Your task to perform on an android device: turn off javascript in the chrome app Image 0: 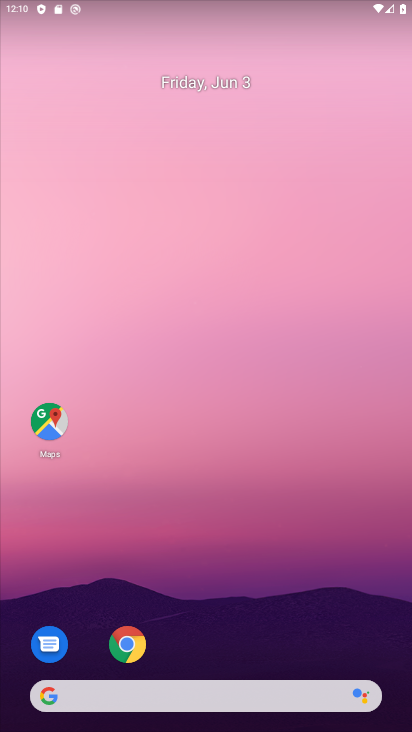
Step 0: click (130, 643)
Your task to perform on an android device: turn off javascript in the chrome app Image 1: 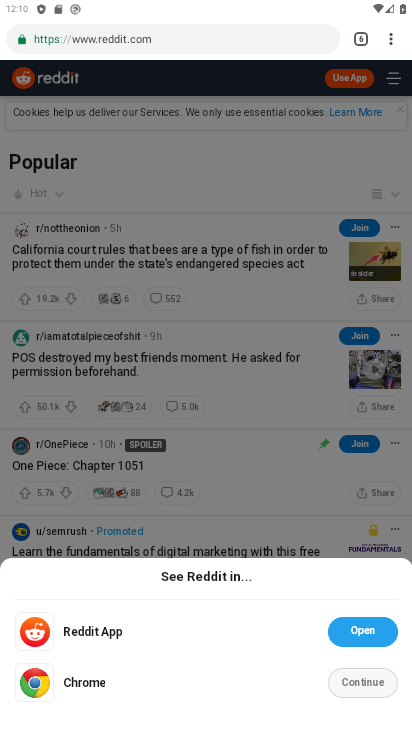
Step 1: click (392, 45)
Your task to perform on an android device: turn off javascript in the chrome app Image 2: 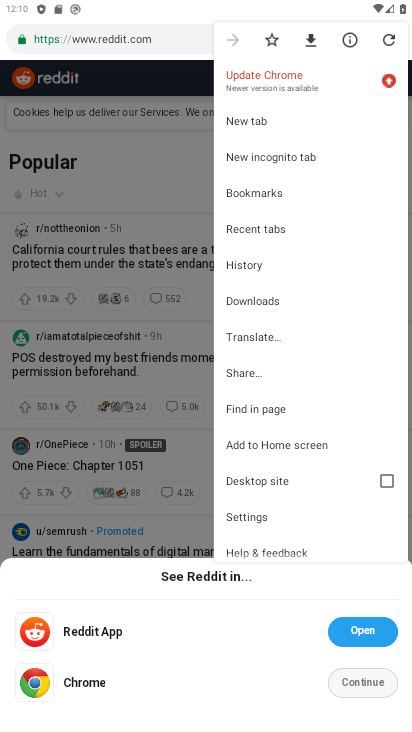
Step 2: click (247, 516)
Your task to perform on an android device: turn off javascript in the chrome app Image 3: 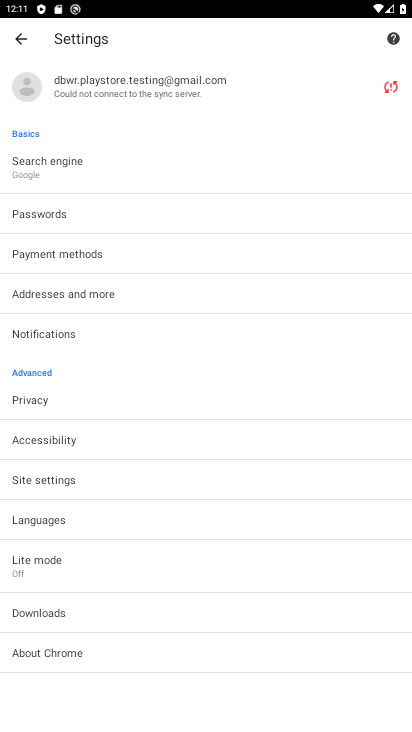
Step 3: click (58, 475)
Your task to perform on an android device: turn off javascript in the chrome app Image 4: 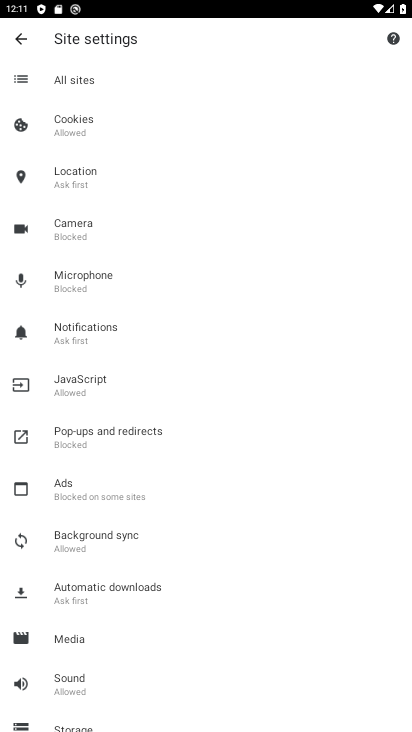
Step 4: click (81, 377)
Your task to perform on an android device: turn off javascript in the chrome app Image 5: 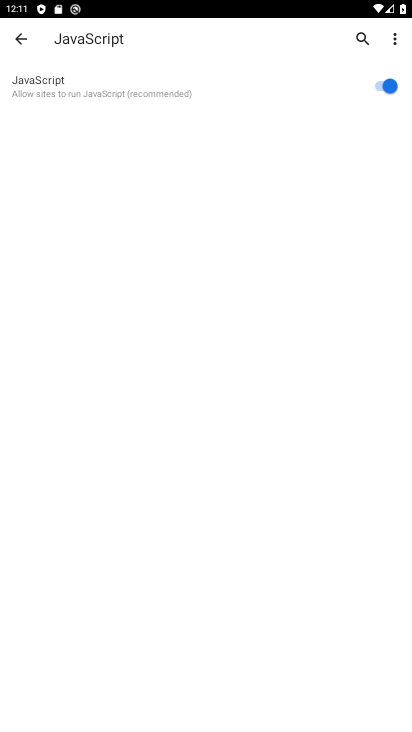
Step 5: click (383, 84)
Your task to perform on an android device: turn off javascript in the chrome app Image 6: 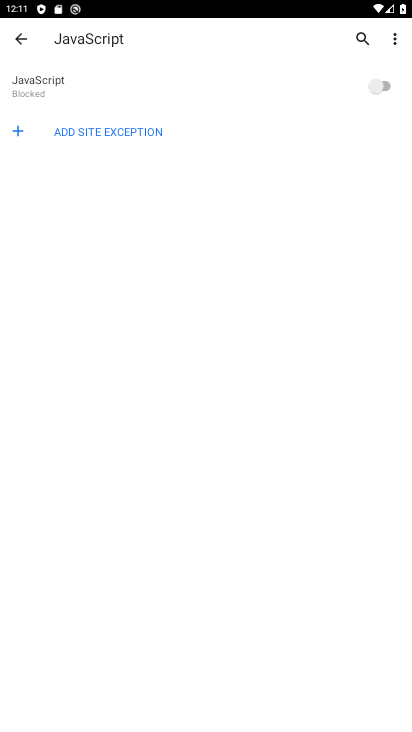
Step 6: task complete